Your task to perform on an android device: Open the calendar app, open the side menu, and click the "Day" option Image 0: 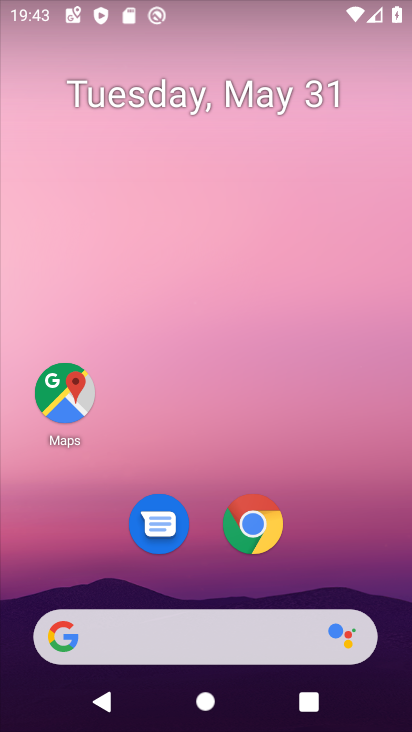
Step 0: drag from (354, 500) to (394, 35)
Your task to perform on an android device: Open the calendar app, open the side menu, and click the "Day" option Image 1: 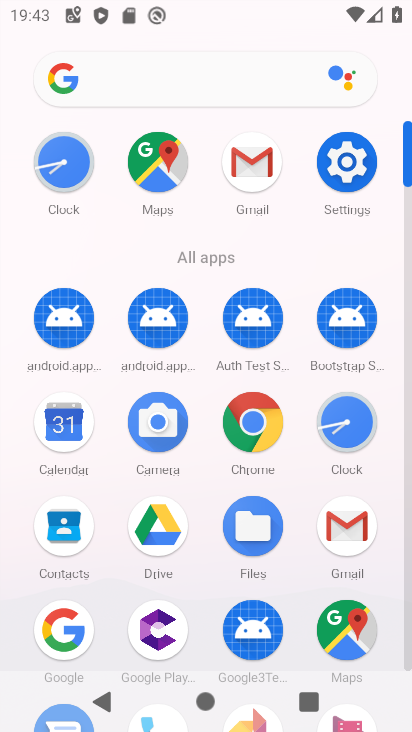
Step 1: click (62, 415)
Your task to perform on an android device: Open the calendar app, open the side menu, and click the "Day" option Image 2: 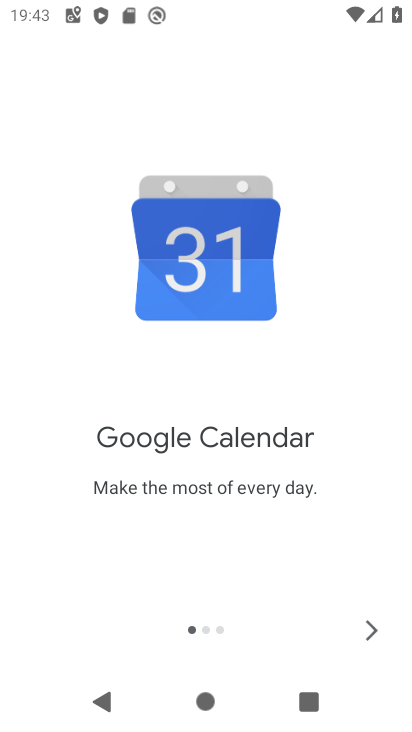
Step 2: click (373, 626)
Your task to perform on an android device: Open the calendar app, open the side menu, and click the "Day" option Image 3: 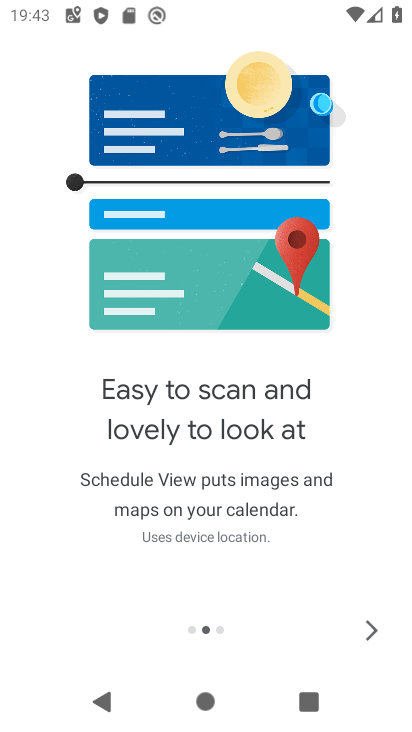
Step 3: click (373, 624)
Your task to perform on an android device: Open the calendar app, open the side menu, and click the "Day" option Image 4: 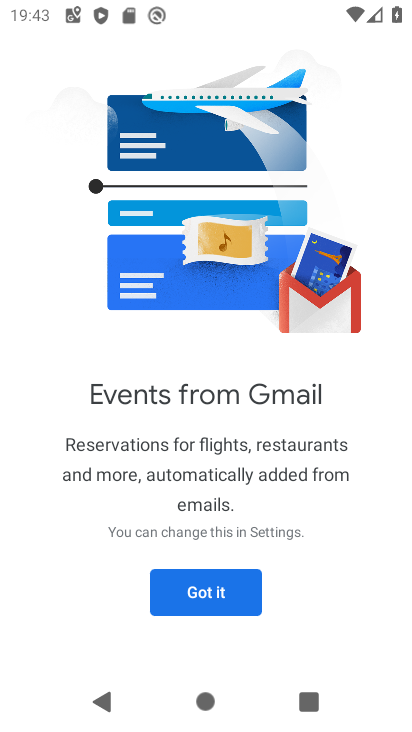
Step 4: click (242, 579)
Your task to perform on an android device: Open the calendar app, open the side menu, and click the "Day" option Image 5: 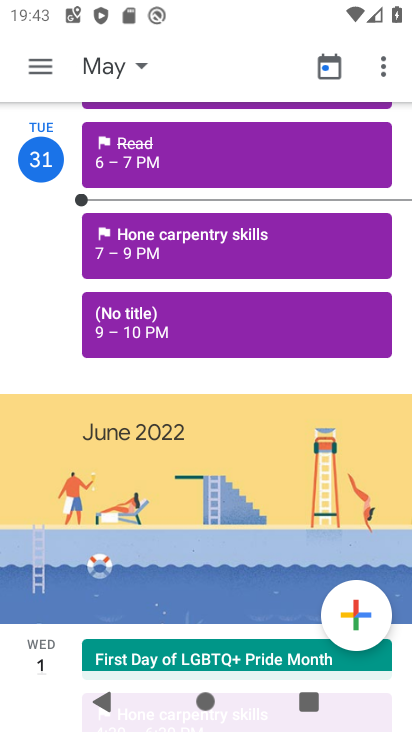
Step 5: click (33, 64)
Your task to perform on an android device: Open the calendar app, open the side menu, and click the "Day" option Image 6: 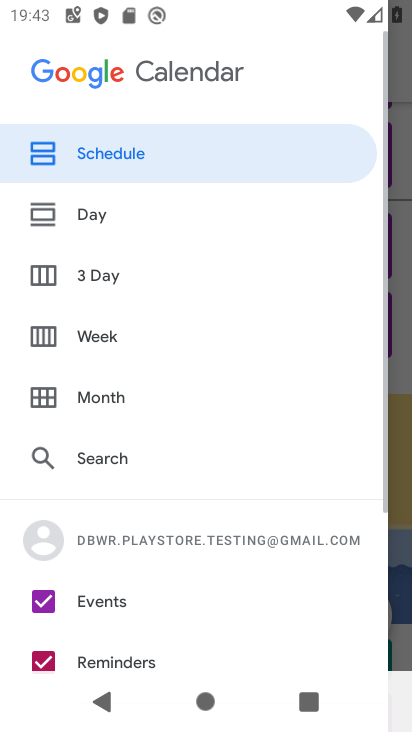
Step 6: click (40, 205)
Your task to perform on an android device: Open the calendar app, open the side menu, and click the "Day" option Image 7: 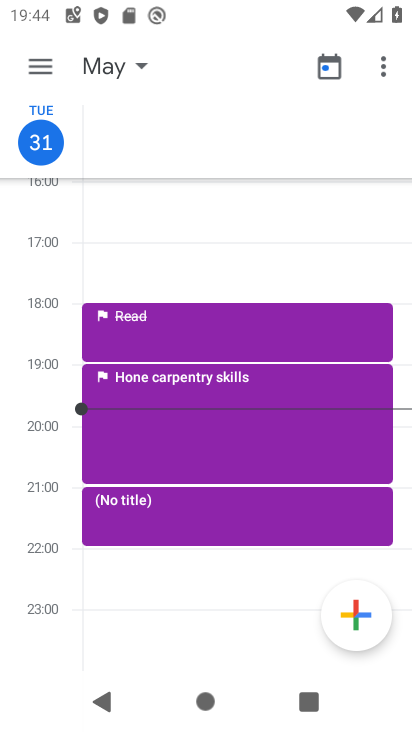
Step 7: task complete